Your task to perform on an android device: create a new album in the google photos Image 0: 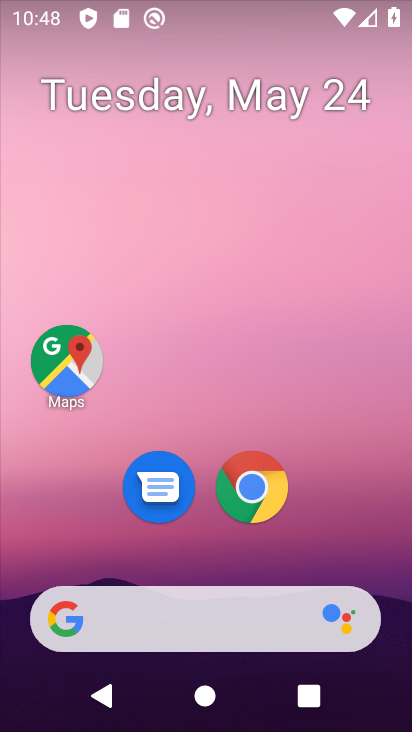
Step 0: drag from (183, 527) to (265, 45)
Your task to perform on an android device: create a new album in the google photos Image 1: 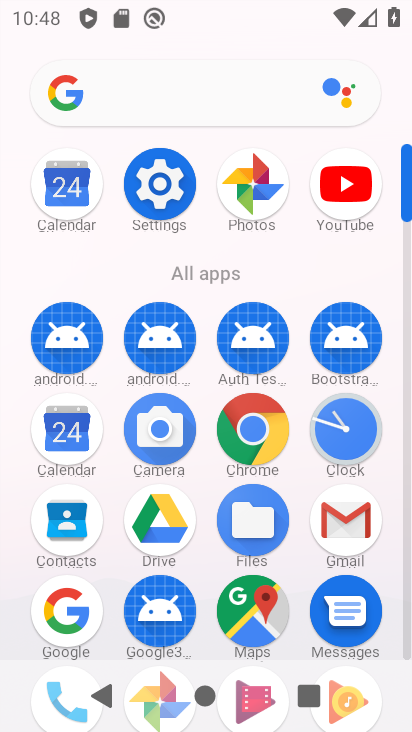
Step 1: drag from (195, 587) to (207, 680)
Your task to perform on an android device: create a new album in the google photos Image 2: 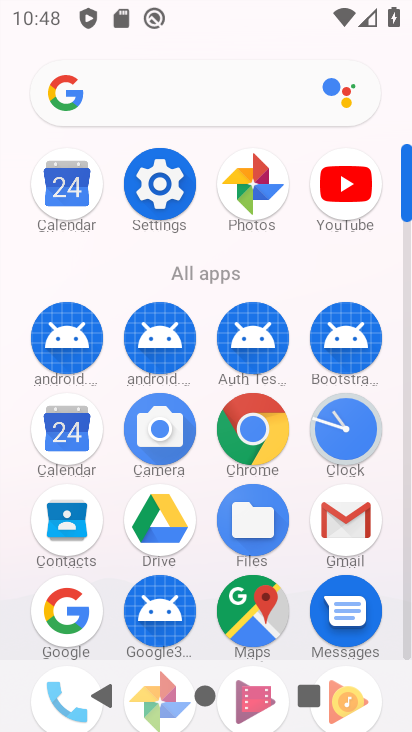
Step 2: click (256, 183)
Your task to perform on an android device: create a new album in the google photos Image 3: 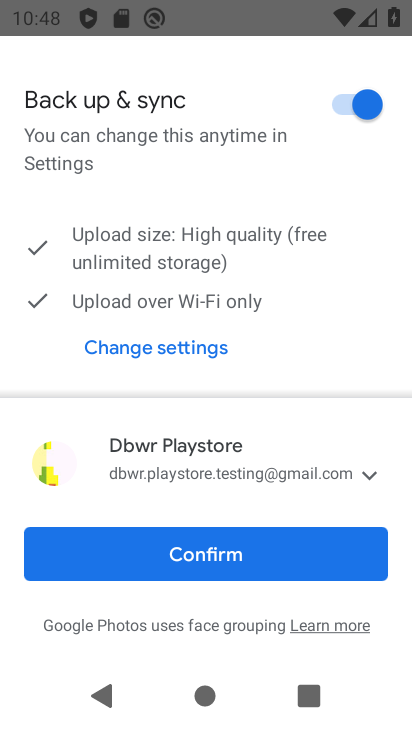
Step 3: click (172, 541)
Your task to perform on an android device: create a new album in the google photos Image 4: 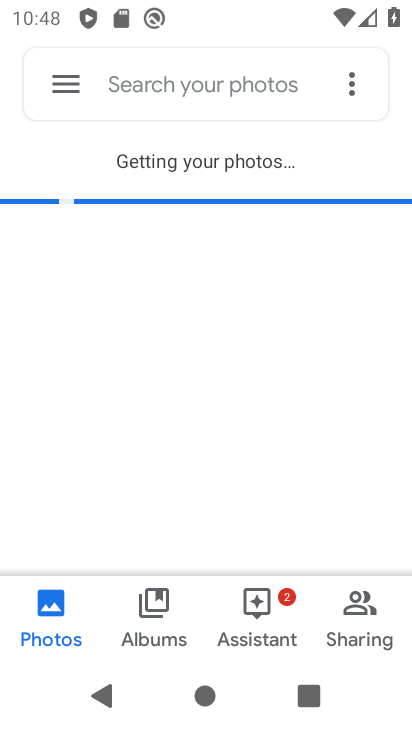
Step 4: click (348, 79)
Your task to perform on an android device: create a new album in the google photos Image 5: 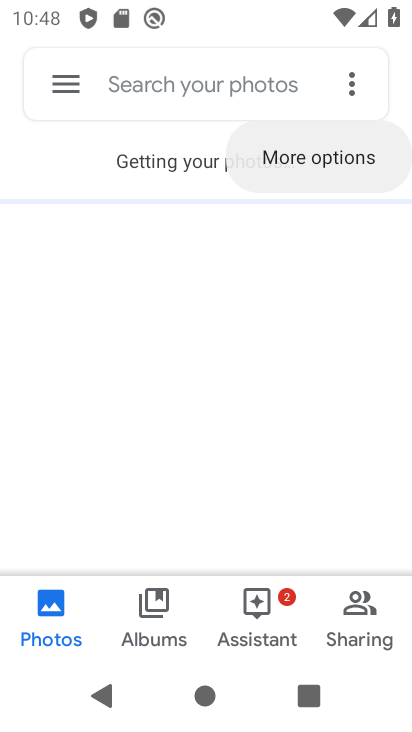
Step 5: click (348, 78)
Your task to perform on an android device: create a new album in the google photos Image 6: 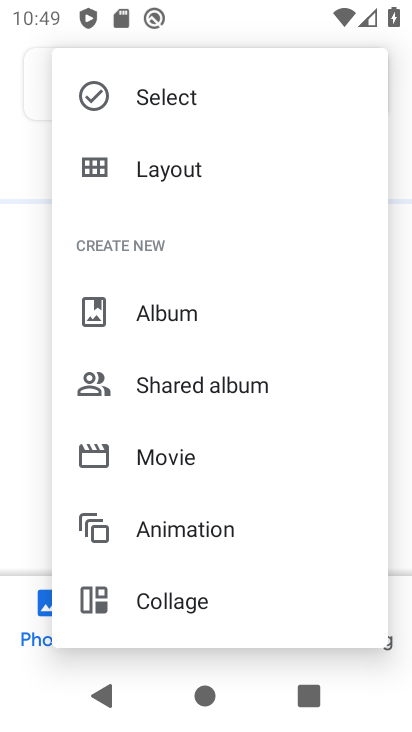
Step 6: click (157, 314)
Your task to perform on an android device: create a new album in the google photos Image 7: 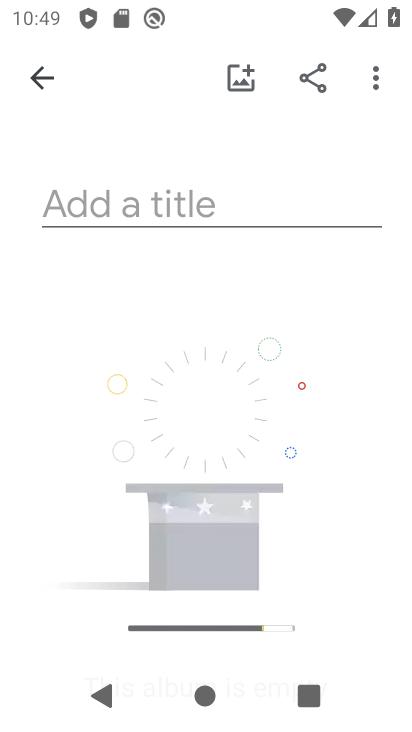
Step 7: click (106, 200)
Your task to perform on an android device: create a new album in the google photos Image 8: 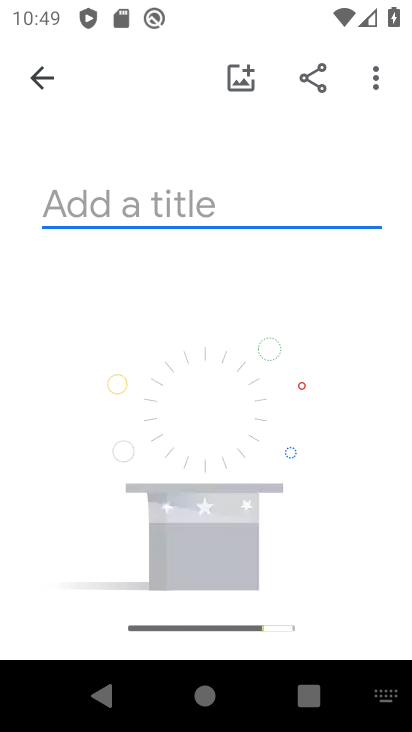
Step 8: type "fggef"
Your task to perform on an android device: create a new album in the google photos Image 9: 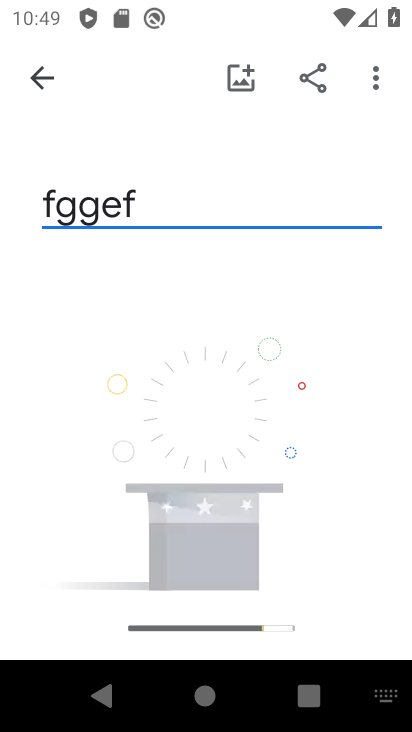
Step 9: drag from (225, 499) to (270, 95)
Your task to perform on an android device: create a new album in the google photos Image 10: 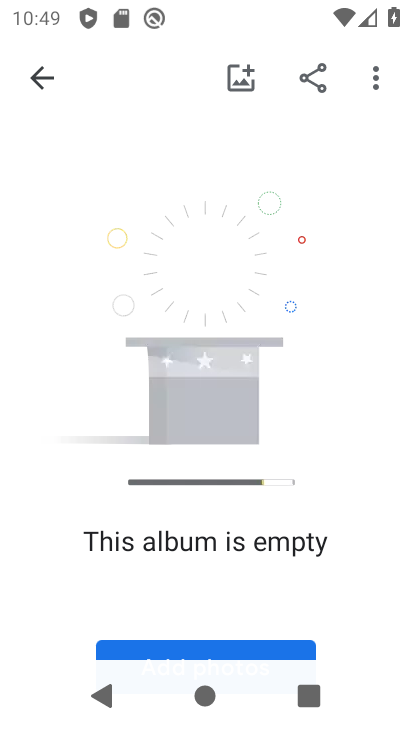
Step 10: drag from (237, 573) to (285, 159)
Your task to perform on an android device: create a new album in the google photos Image 11: 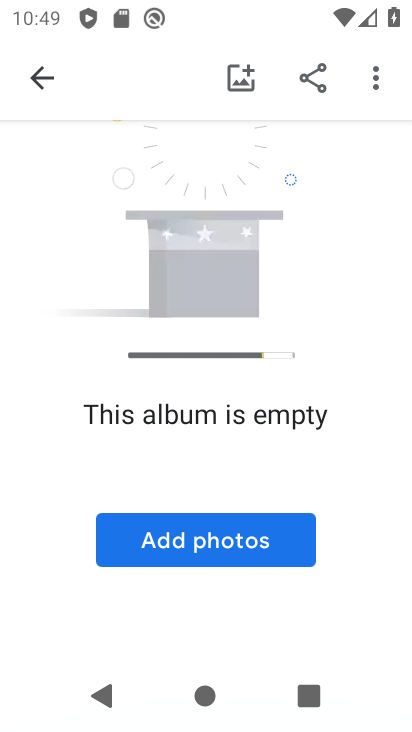
Step 11: click (244, 543)
Your task to perform on an android device: create a new album in the google photos Image 12: 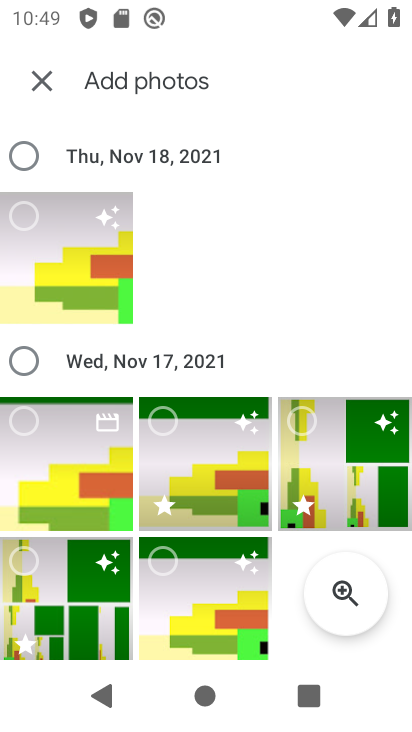
Step 12: click (35, 155)
Your task to perform on an android device: create a new album in the google photos Image 13: 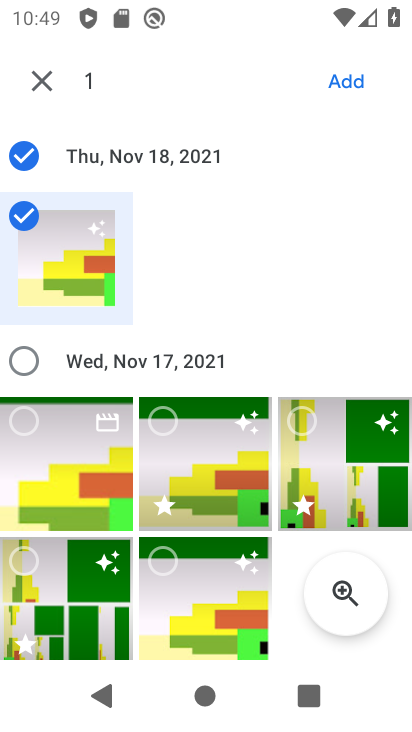
Step 13: click (25, 359)
Your task to perform on an android device: create a new album in the google photos Image 14: 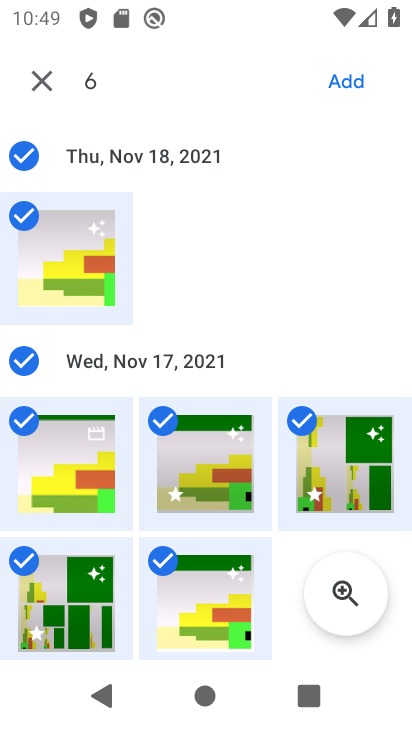
Step 14: click (340, 77)
Your task to perform on an android device: create a new album in the google photos Image 15: 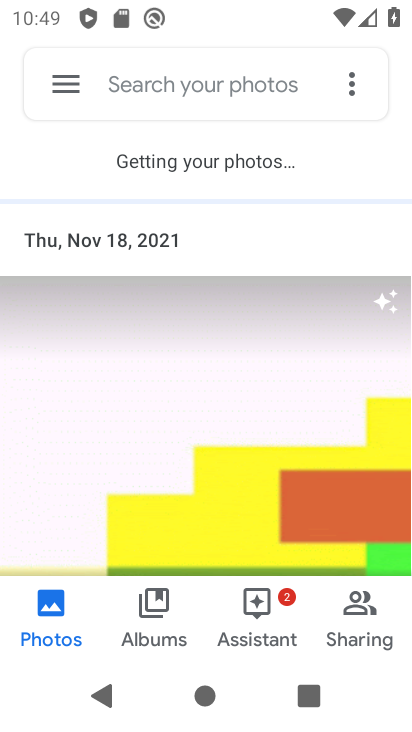
Step 15: task complete